Your task to perform on an android device: change the clock style Image 0: 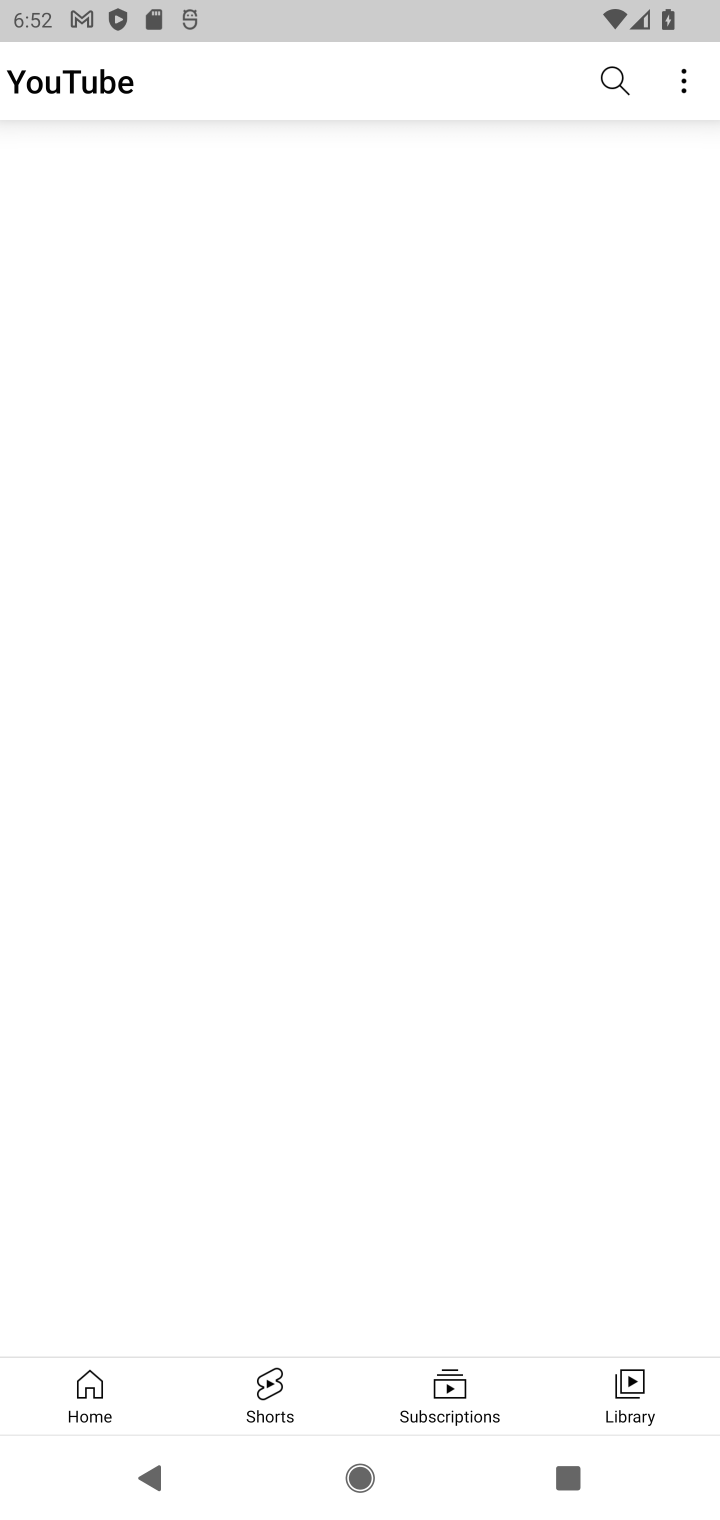
Step 0: press home button
Your task to perform on an android device: change the clock style Image 1: 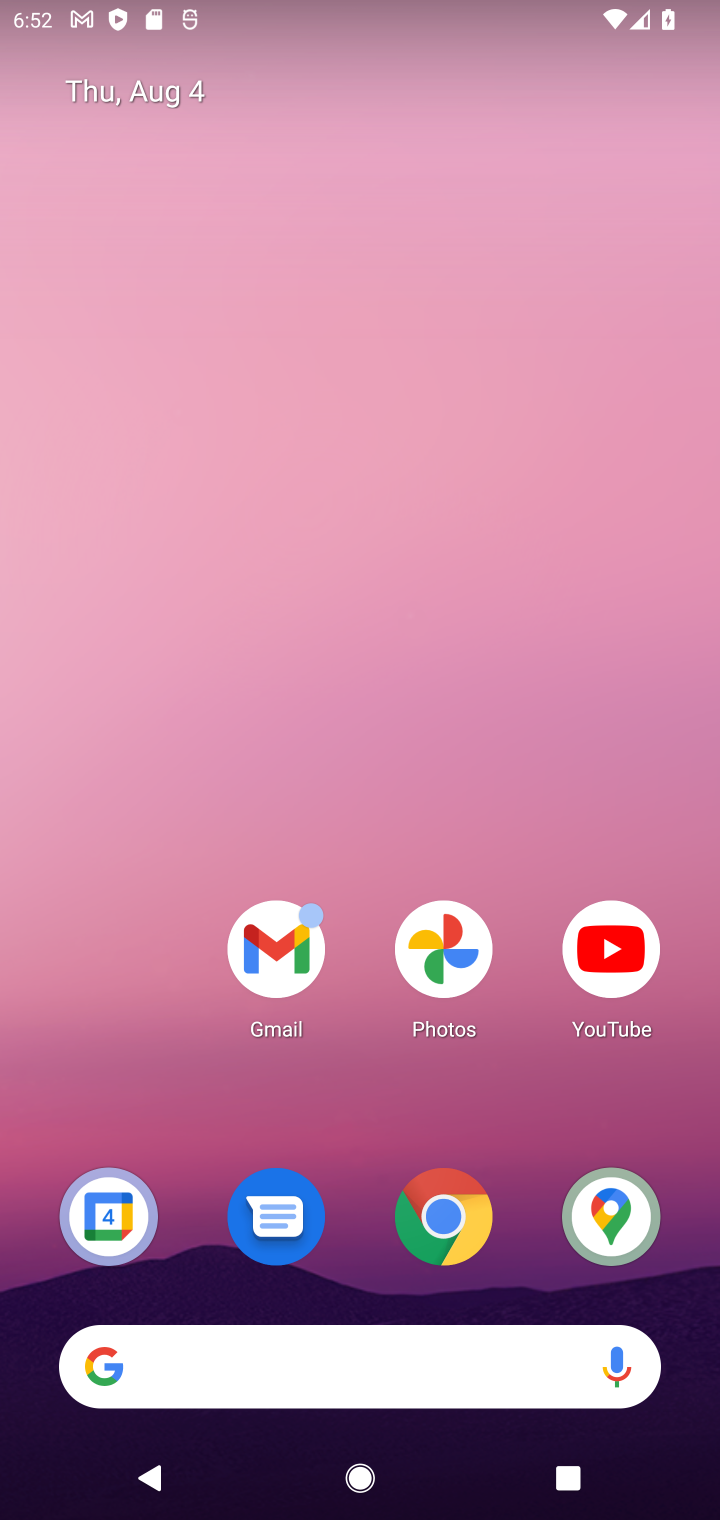
Step 1: press home button
Your task to perform on an android device: change the clock style Image 2: 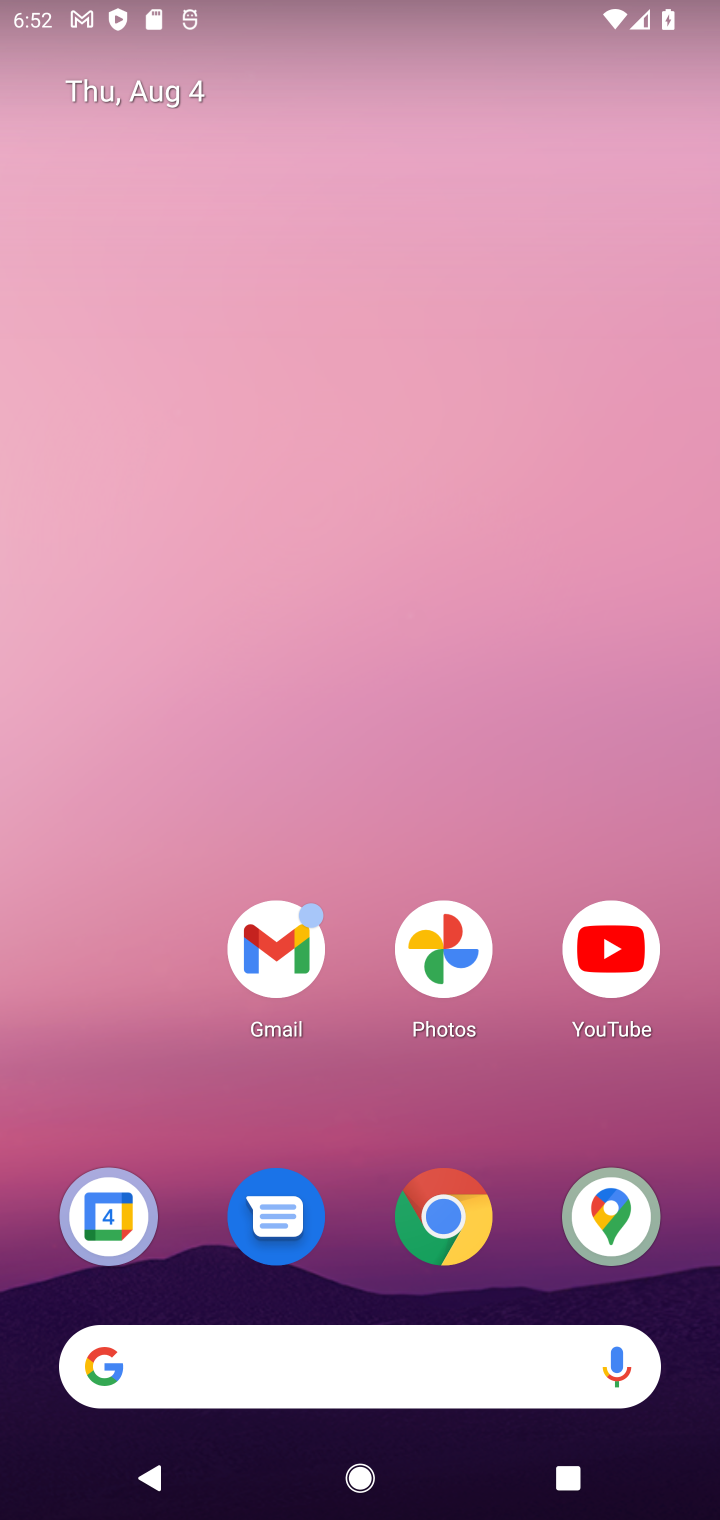
Step 2: drag from (371, 1086) to (327, 203)
Your task to perform on an android device: change the clock style Image 3: 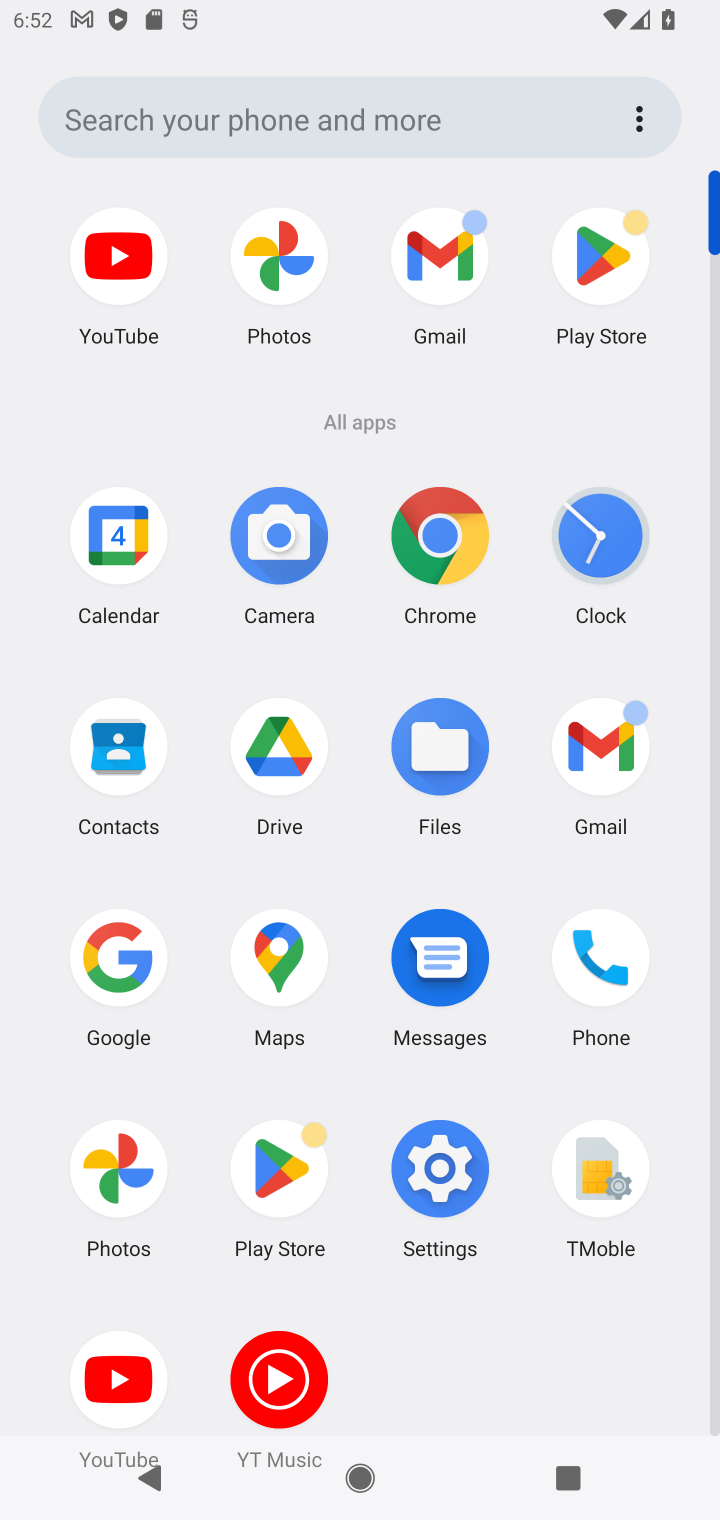
Step 3: click (597, 529)
Your task to perform on an android device: change the clock style Image 4: 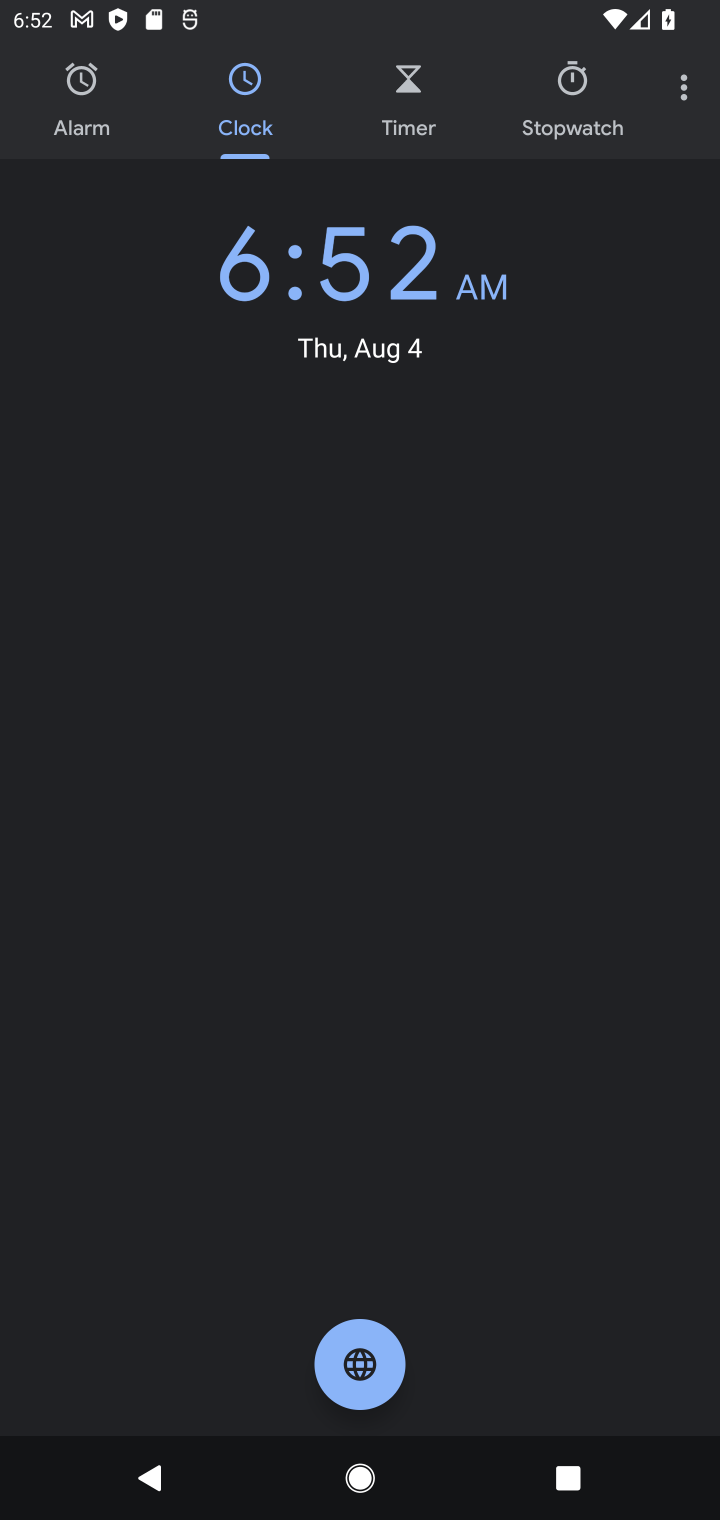
Step 4: click (681, 107)
Your task to perform on an android device: change the clock style Image 5: 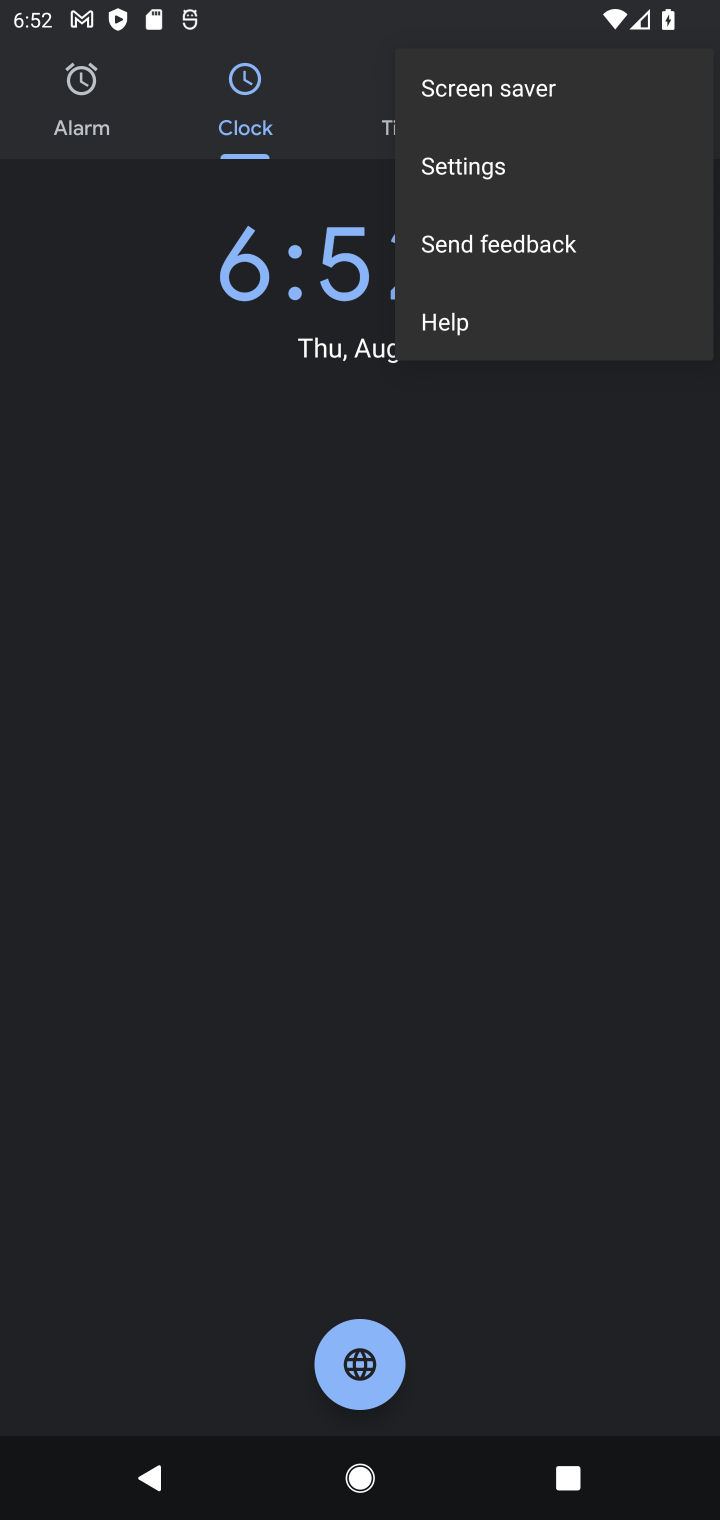
Step 5: click (458, 167)
Your task to perform on an android device: change the clock style Image 6: 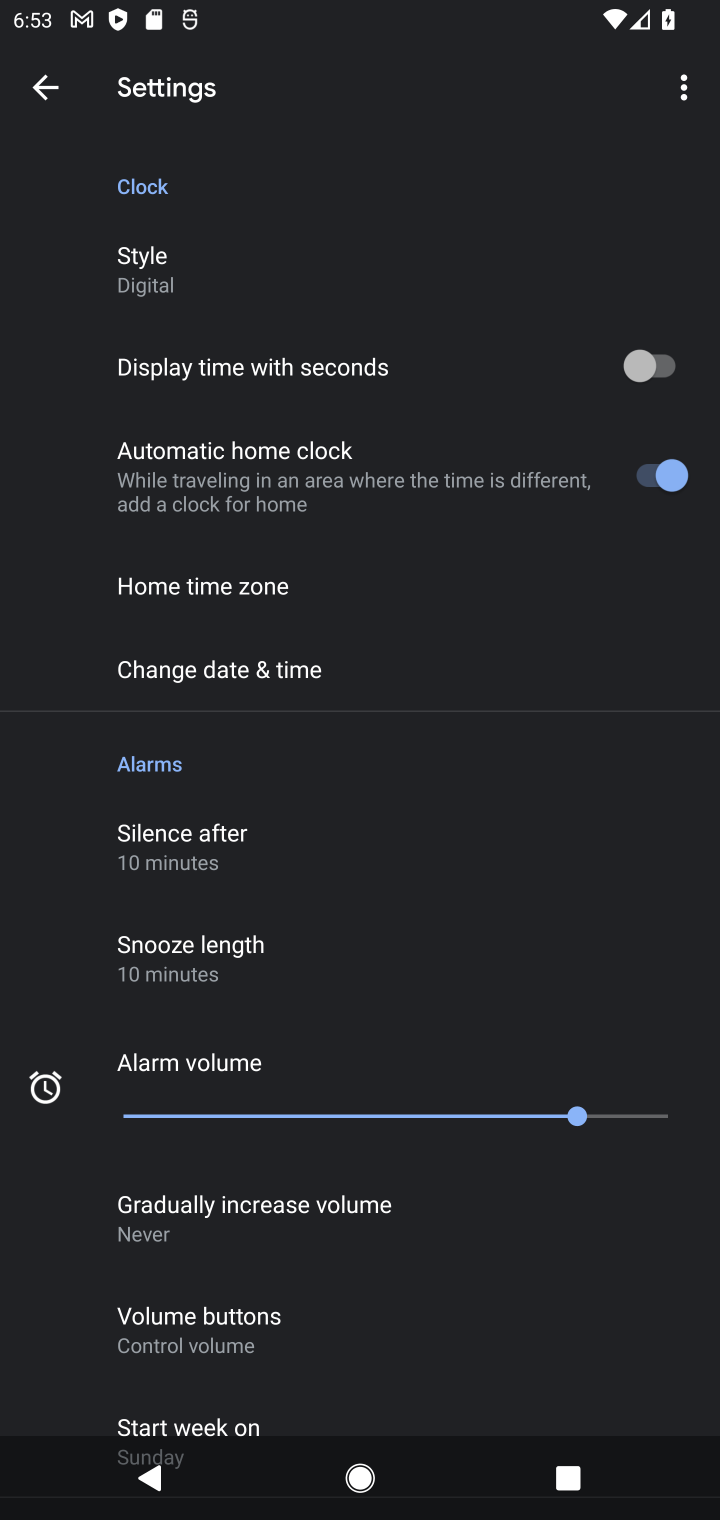
Step 6: click (133, 287)
Your task to perform on an android device: change the clock style Image 7: 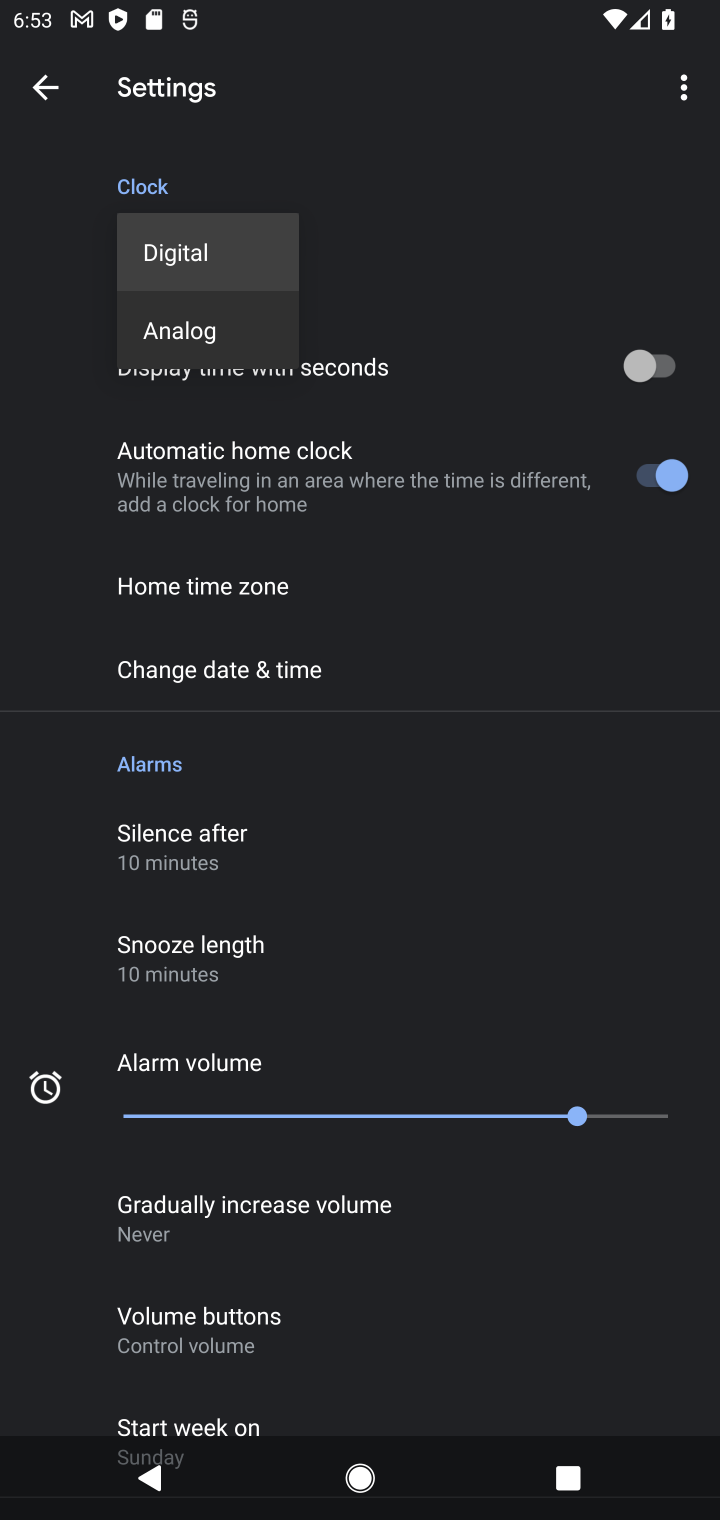
Step 7: click (179, 335)
Your task to perform on an android device: change the clock style Image 8: 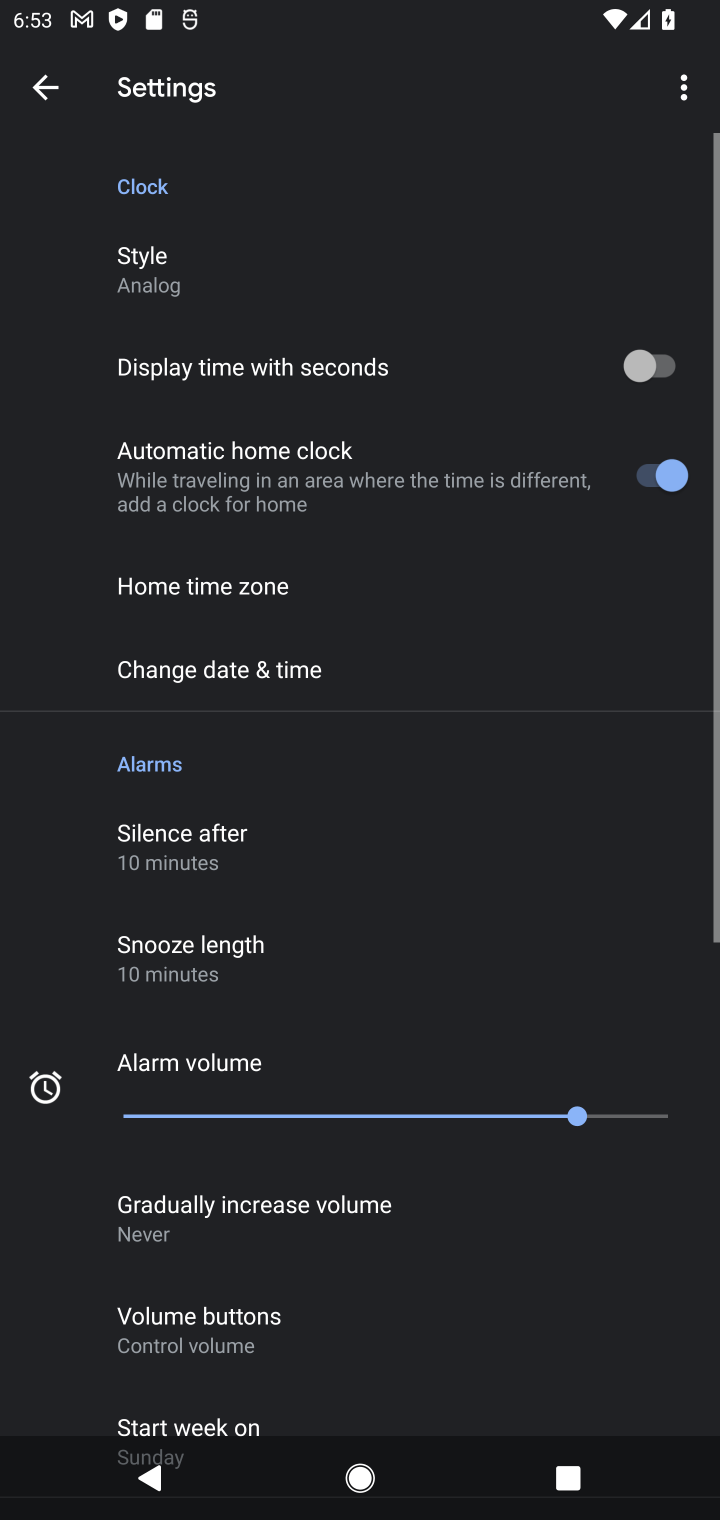
Step 8: task complete